Your task to perform on an android device: open app "Venmo" Image 0: 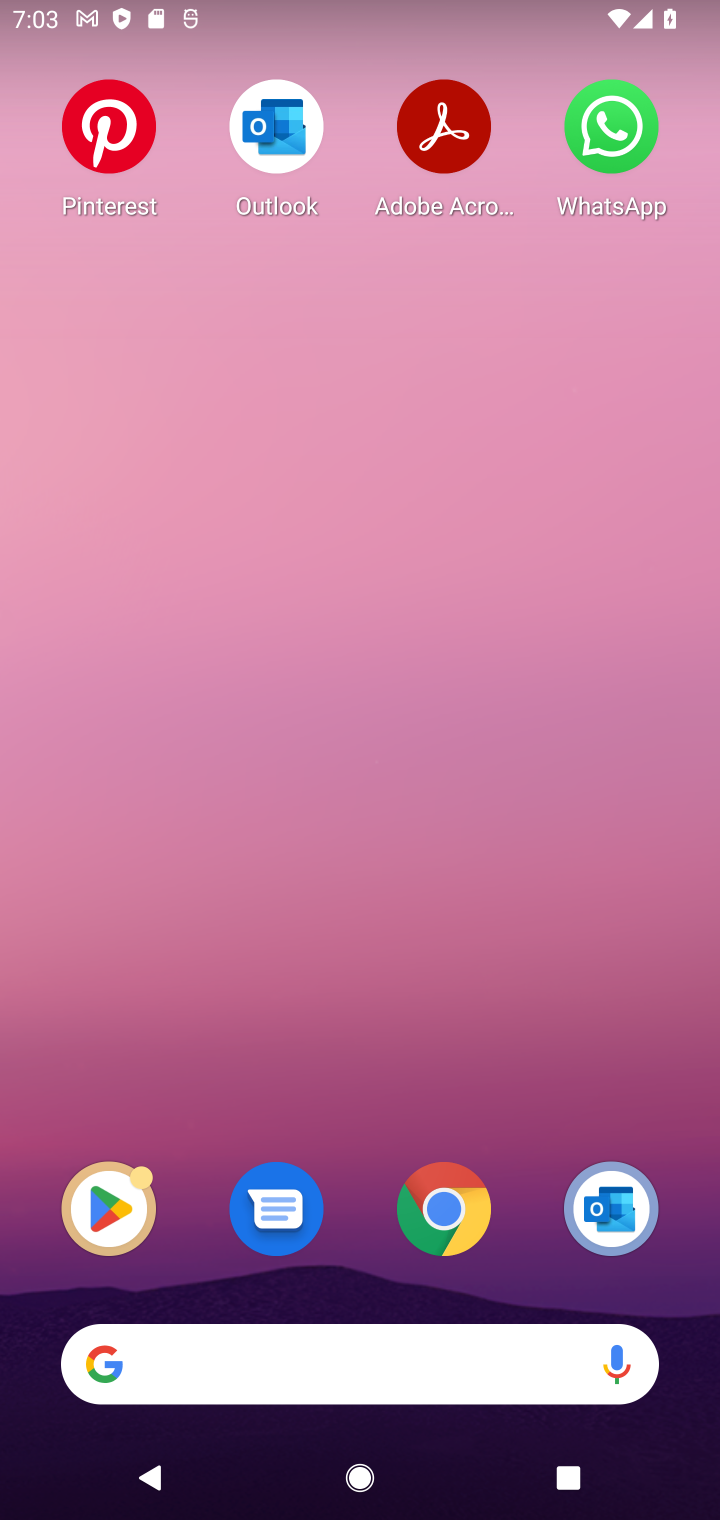
Step 0: drag from (378, 995) to (350, 411)
Your task to perform on an android device: open app "Venmo" Image 1: 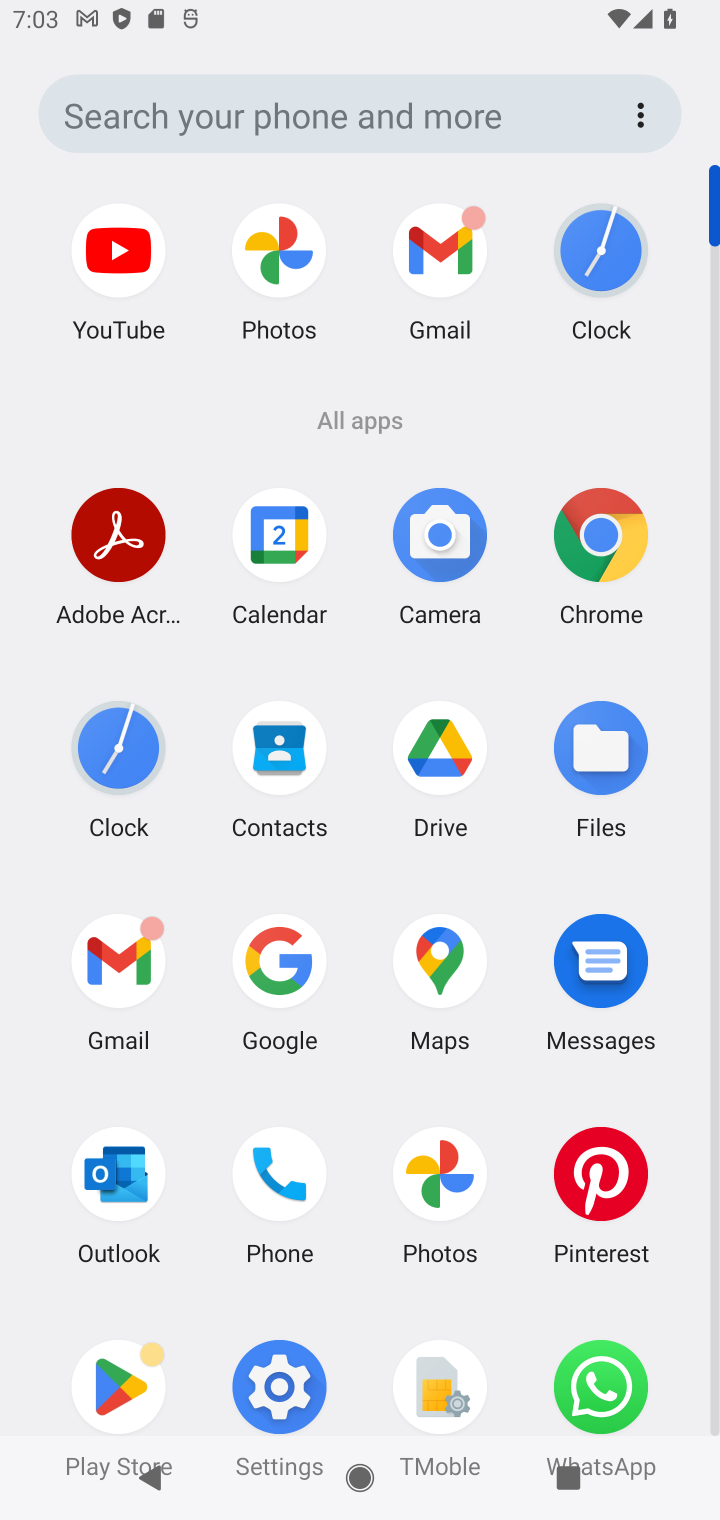
Step 1: click (119, 1394)
Your task to perform on an android device: open app "Venmo" Image 2: 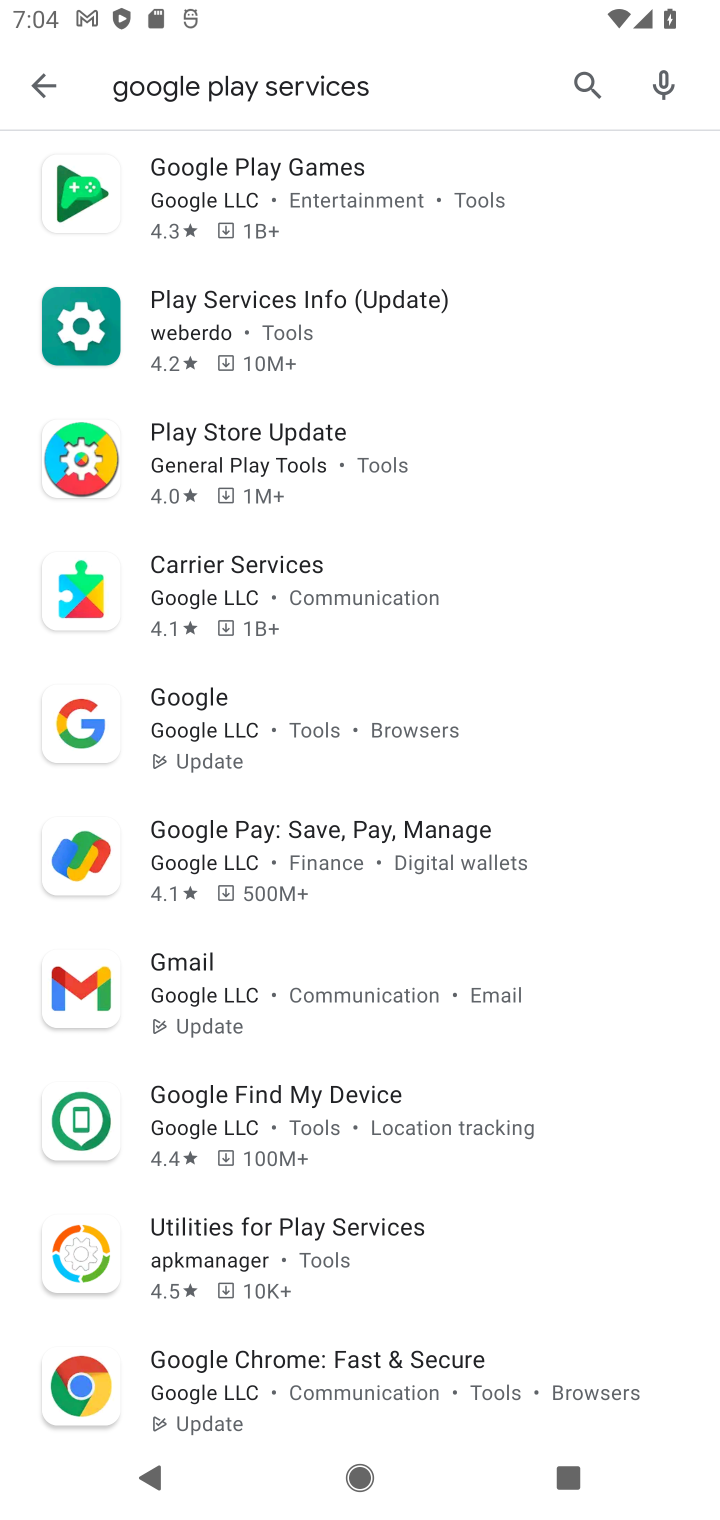
Step 2: click (587, 80)
Your task to perform on an android device: open app "Venmo" Image 3: 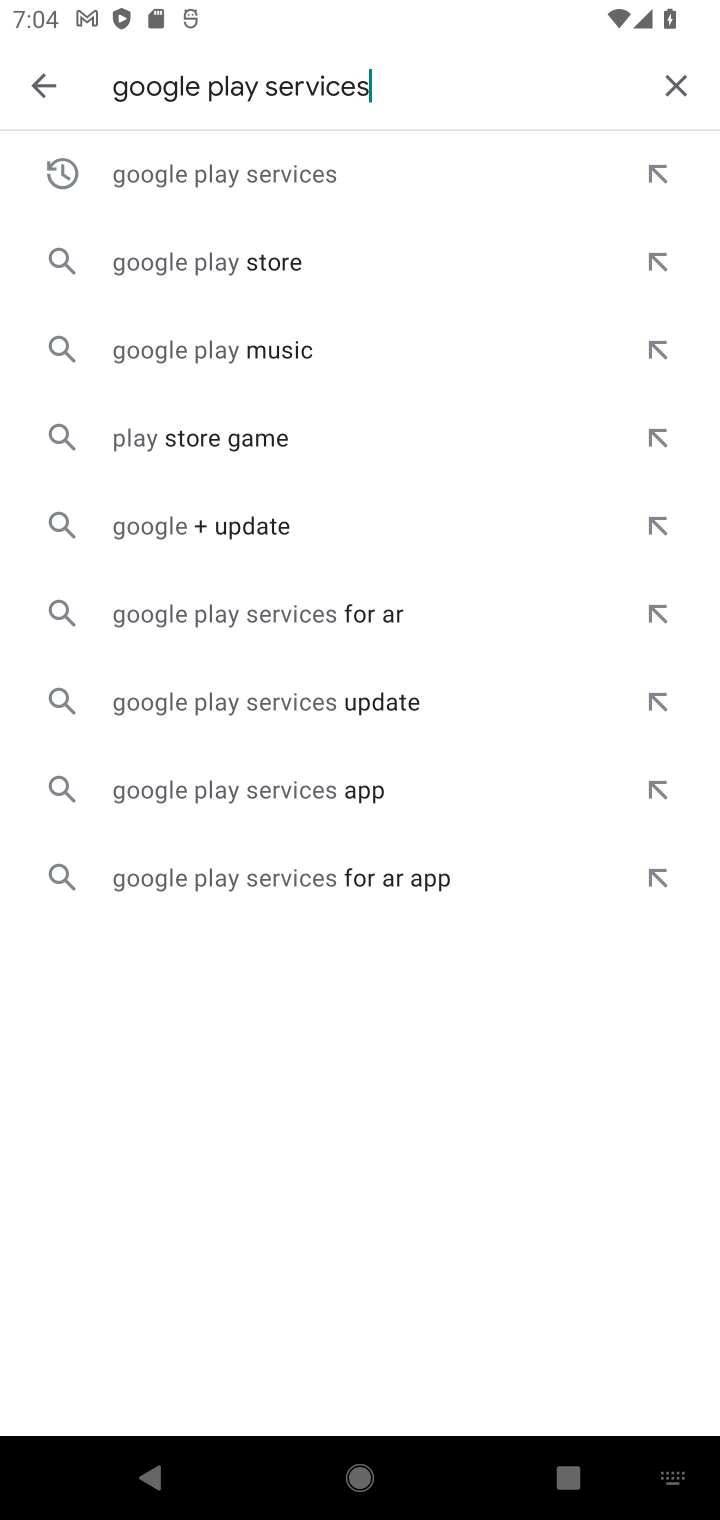
Step 3: click (676, 76)
Your task to perform on an android device: open app "Venmo" Image 4: 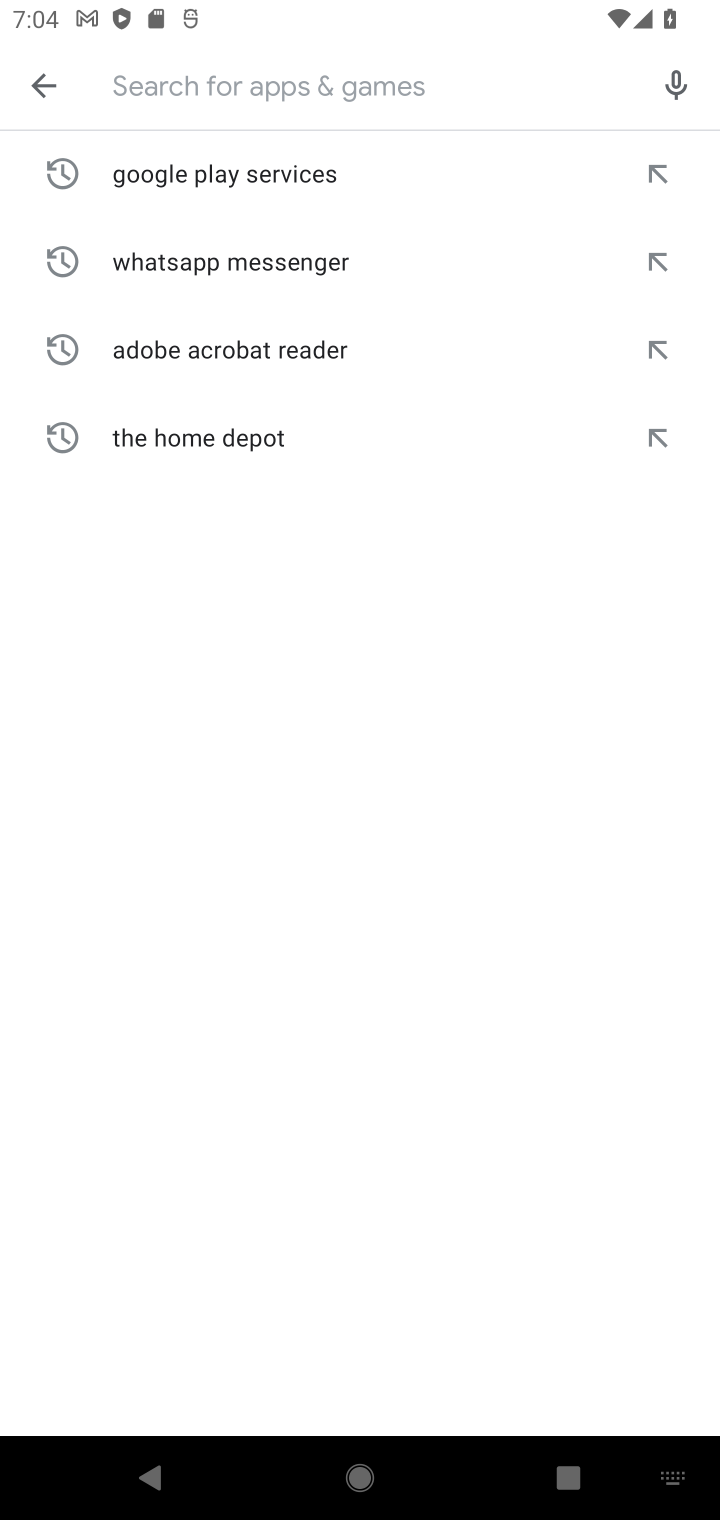
Step 4: type "venmo"
Your task to perform on an android device: open app "Venmo" Image 5: 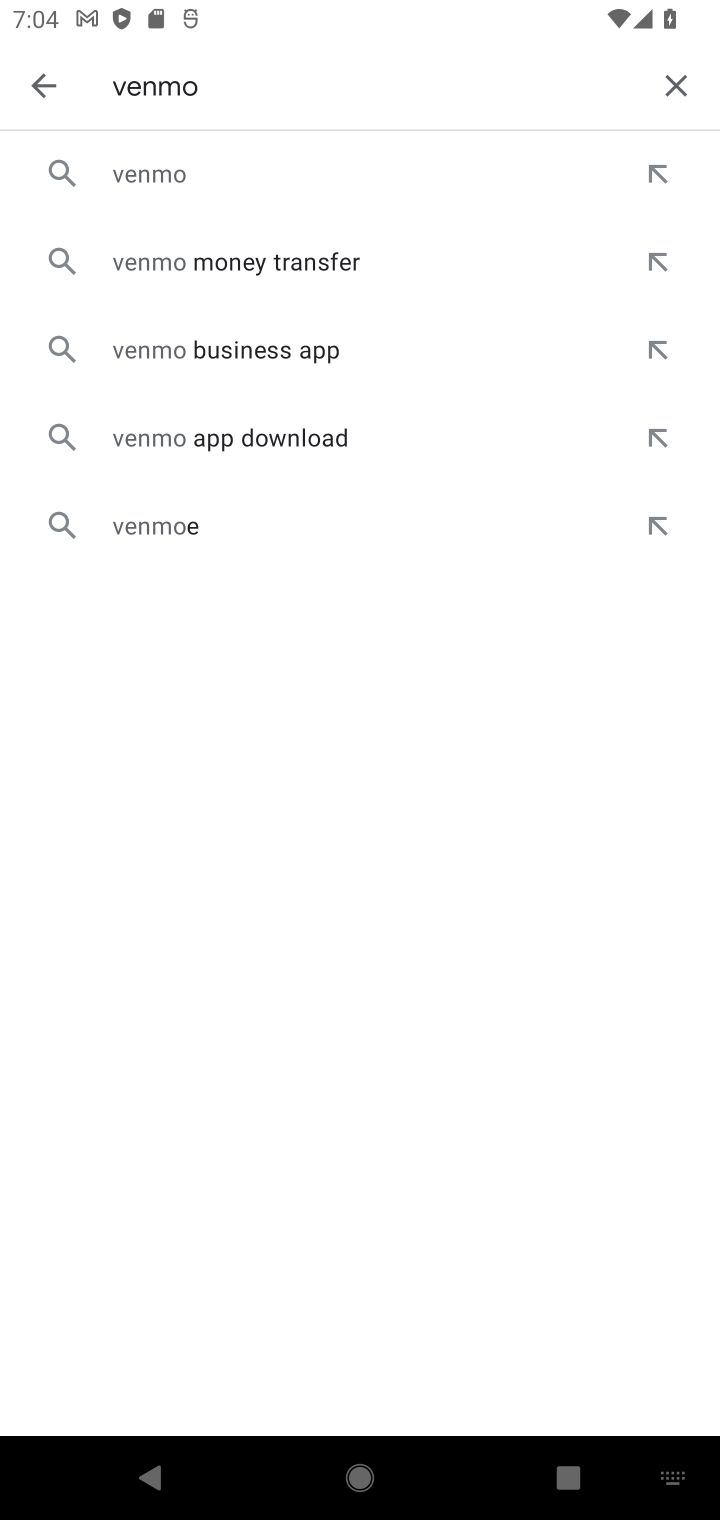
Step 5: click (155, 162)
Your task to perform on an android device: open app "Venmo" Image 6: 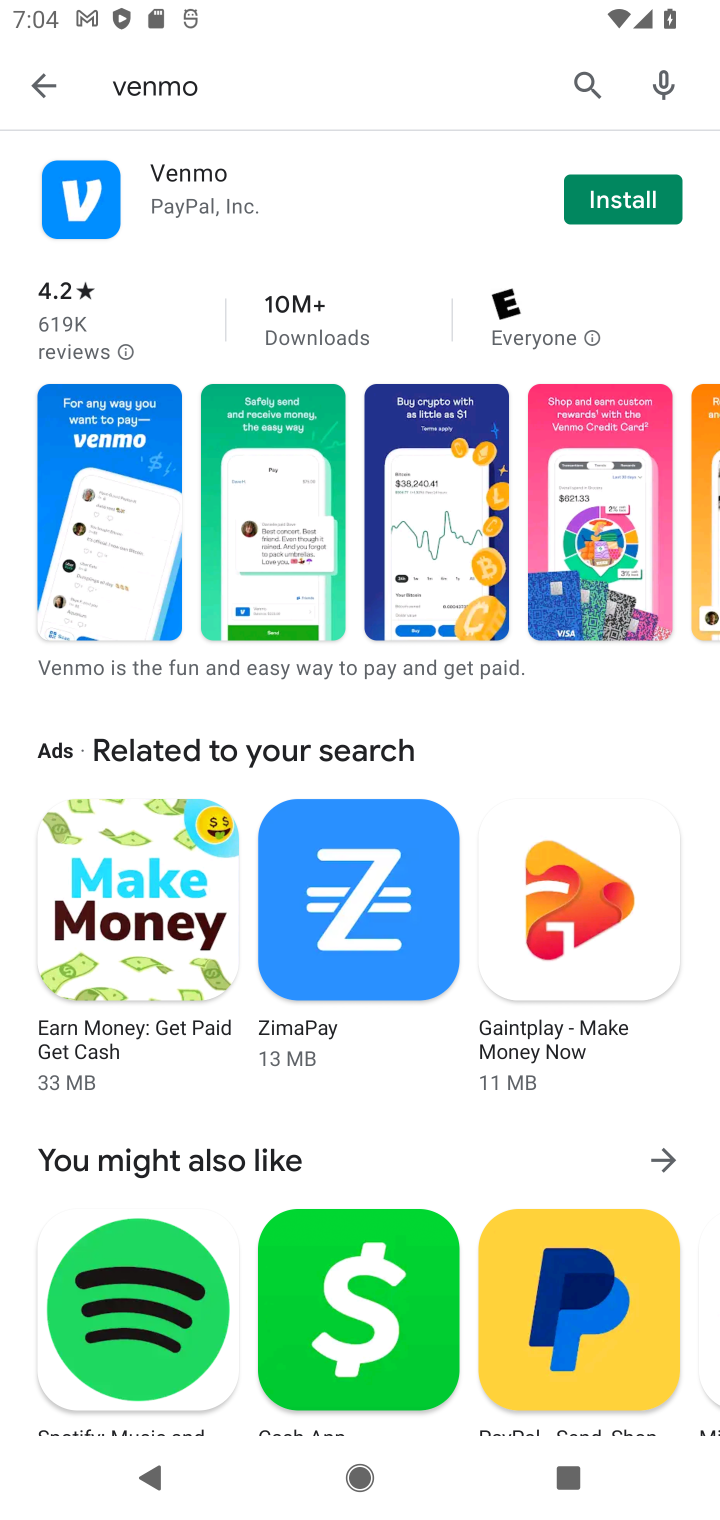
Step 6: task complete